Your task to perform on an android device: Open internet settings Image 0: 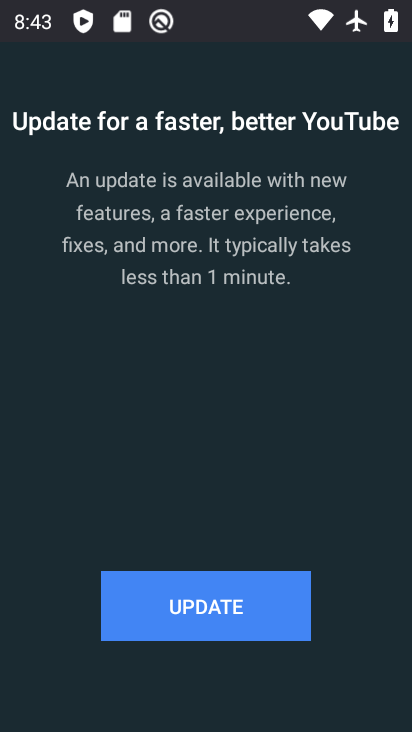
Step 0: press home button
Your task to perform on an android device: Open internet settings Image 1: 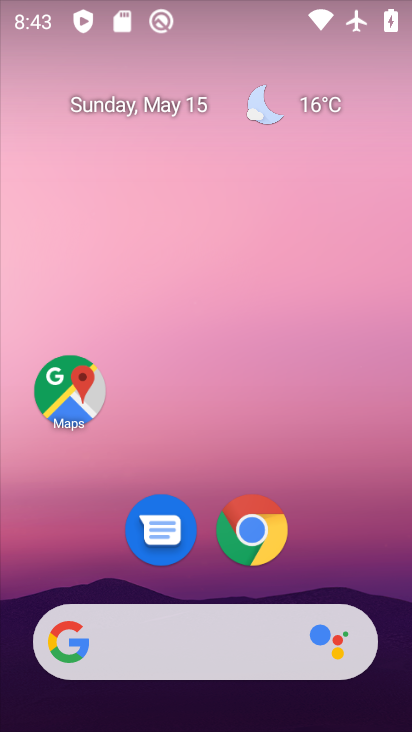
Step 1: drag from (228, 720) to (198, 246)
Your task to perform on an android device: Open internet settings Image 2: 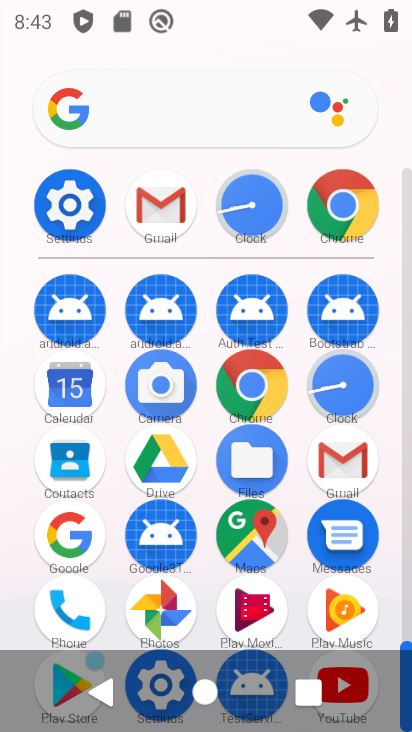
Step 2: click (66, 200)
Your task to perform on an android device: Open internet settings Image 3: 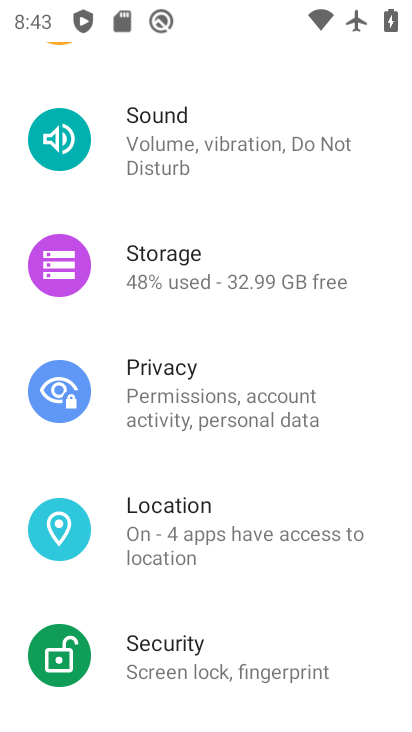
Step 3: drag from (268, 100) to (235, 567)
Your task to perform on an android device: Open internet settings Image 4: 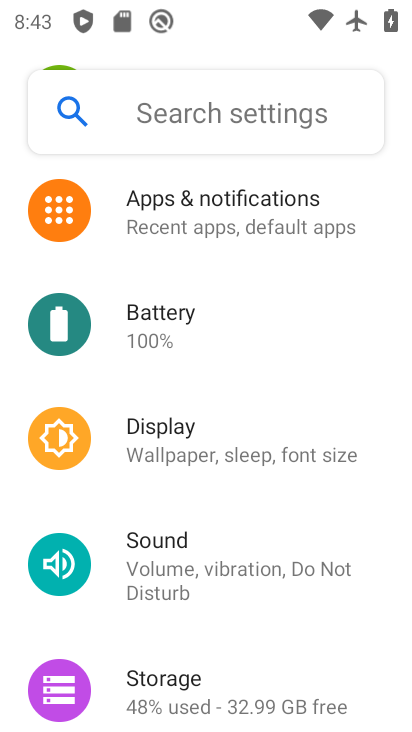
Step 4: drag from (230, 214) to (217, 515)
Your task to perform on an android device: Open internet settings Image 5: 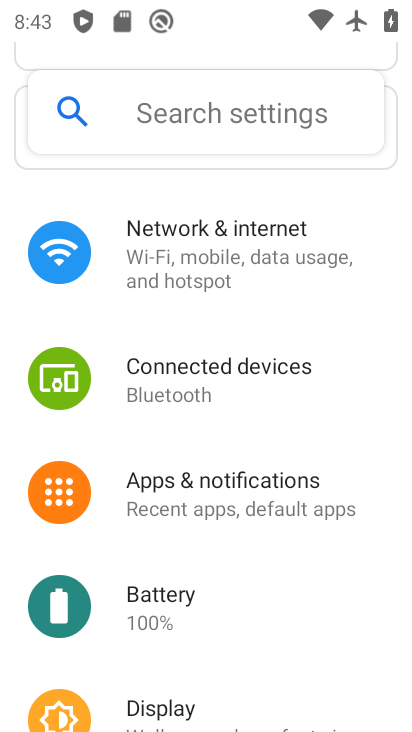
Step 5: click (223, 267)
Your task to perform on an android device: Open internet settings Image 6: 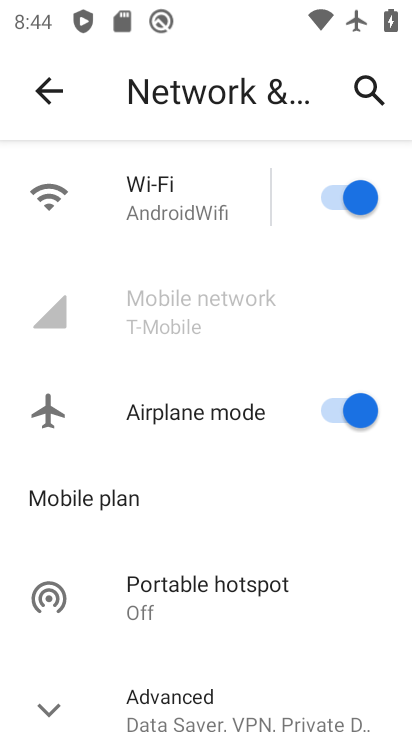
Step 6: task complete